Your task to perform on an android device: add a contact in the contacts app Image 0: 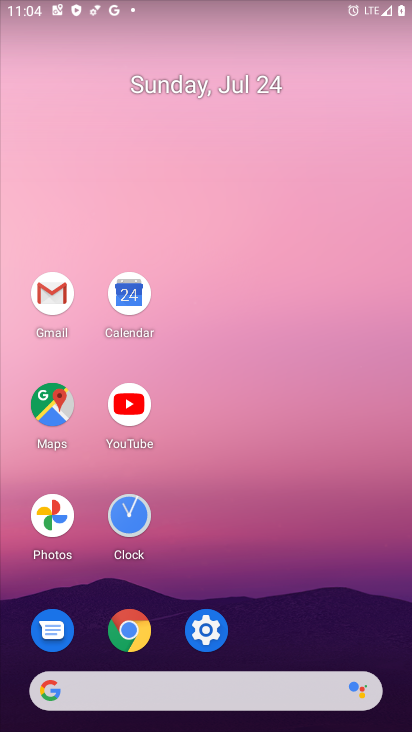
Step 0: drag from (272, 573) to (270, 92)
Your task to perform on an android device: add a contact in the contacts app Image 1: 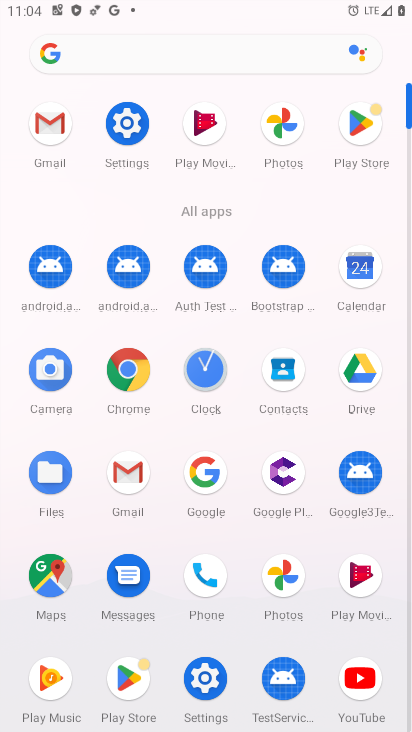
Step 1: click (292, 364)
Your task to perform on an android device: add a contact in the contacts app Image 2: 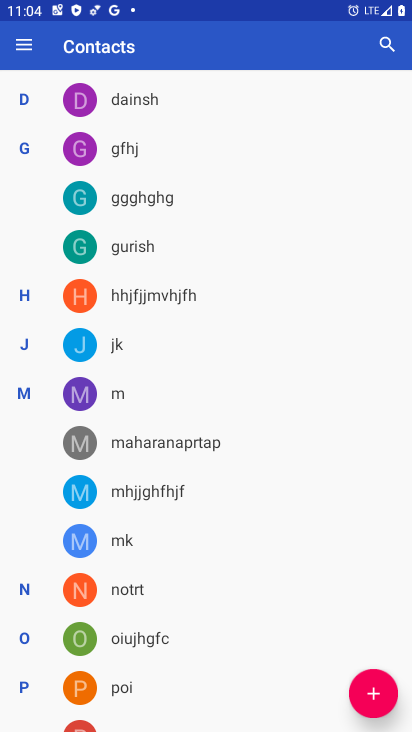
Step 2: click (364, 700)
Your task to perform on an android device: add a contact in the contacts app Image 3: 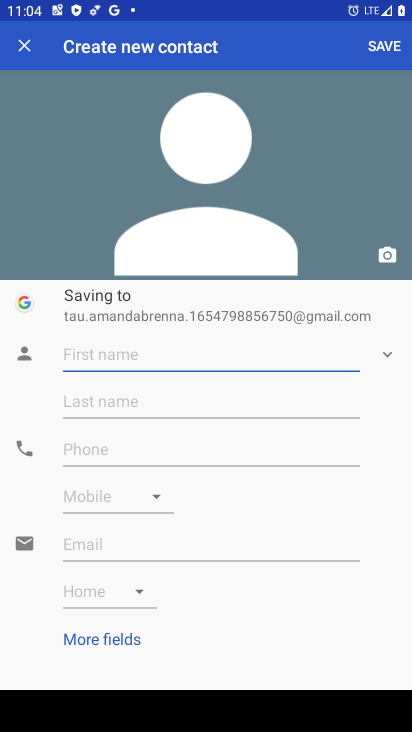
Step 3: click (98, 350)
Your task to perform on an android device: add a contact in the contacts app Image 4: 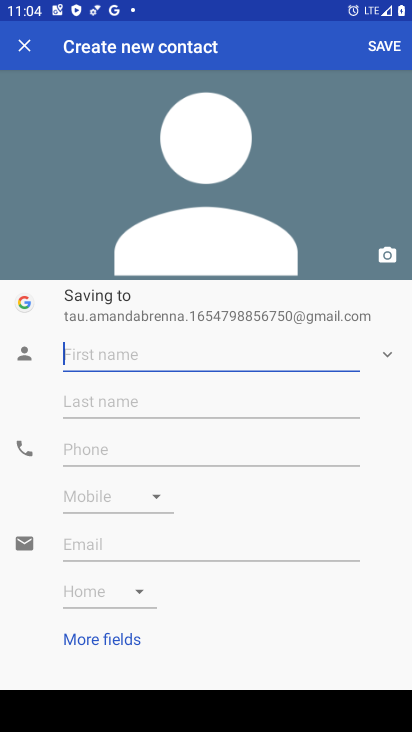
Step 4: type "zxc"
Your task to perform on an android device: add a contact in the contacts app Image 5: 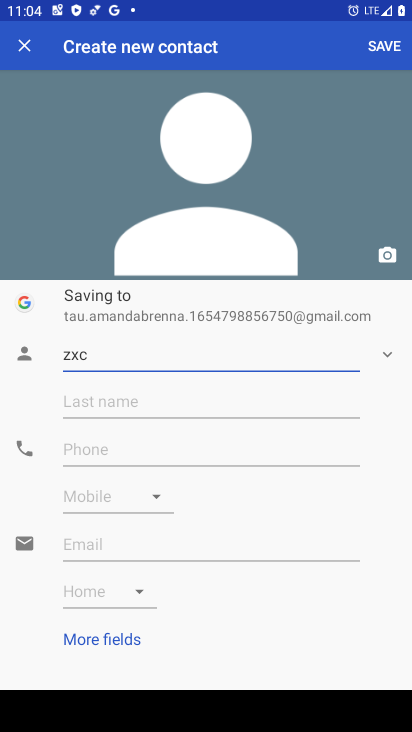
Step 5: click (117, 436)
Your task to perform on an android device: add a contact in the contacts app Image 6: 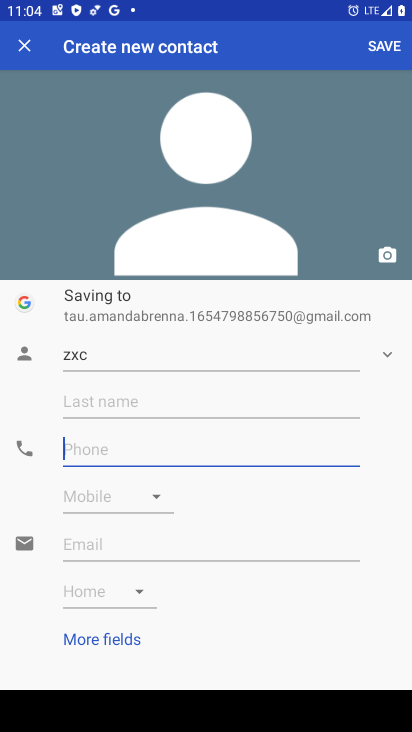
Step 6: type "9999999999"
Your task to perform on an android device: add a contact in the contacts app Image 7: 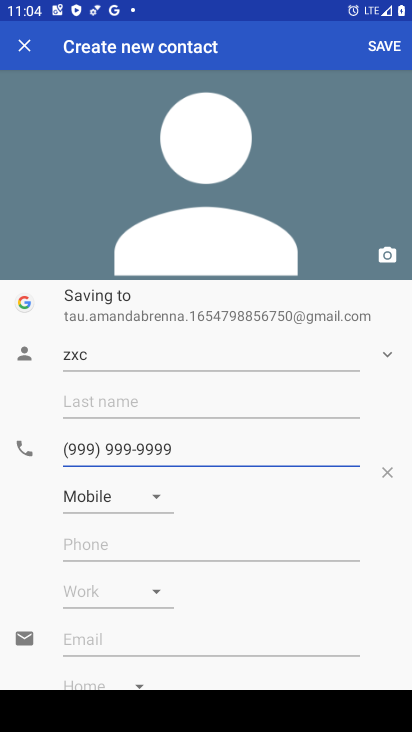
Step 7: click (386, 40)
Your task to perform on an android device: add a contact in the contacts app Image 8: 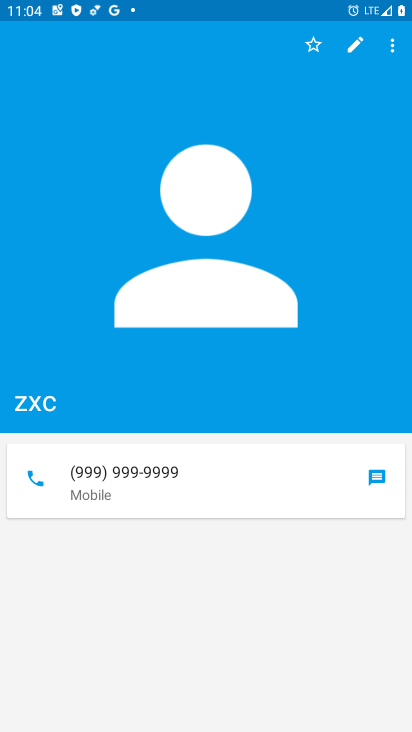
Step 8: task complete